Your task to perform on an android device: Open Chrome and go to settings Image 0: 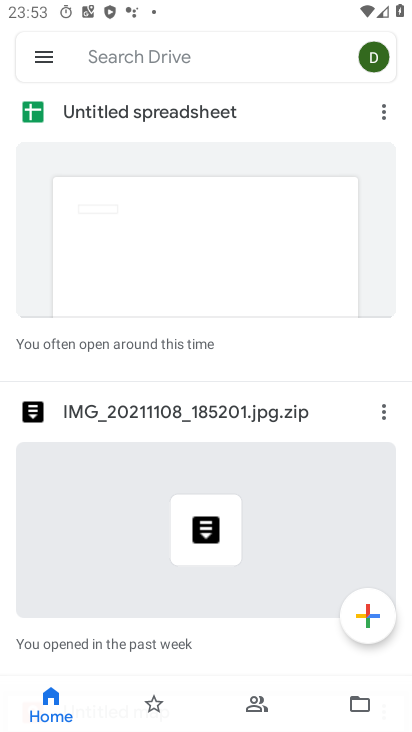
Step 0: press home button
Your task to perform on an android device: Open Chrome and go to settings Image 1: 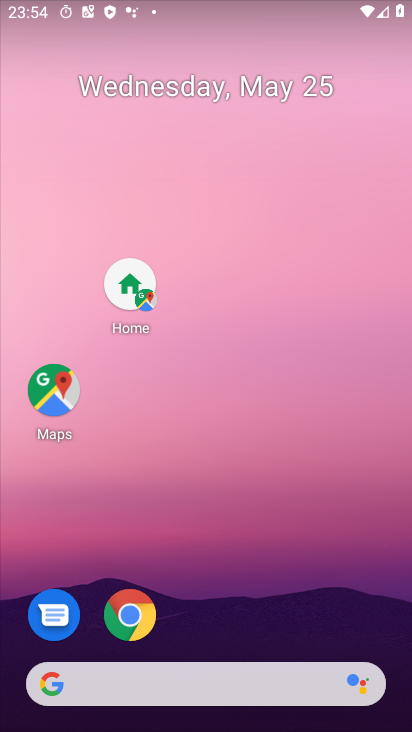
Step 1: click (128, 621)
Your task to perform on an android device: Open Chrome and go to settings Image 2: 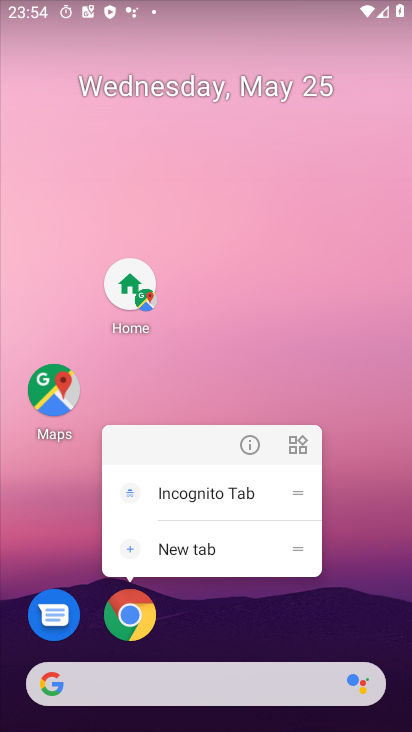
Step 2: click (132, 619)
Your task to perform on an android device: Open Chrome and go to settings Image 3: 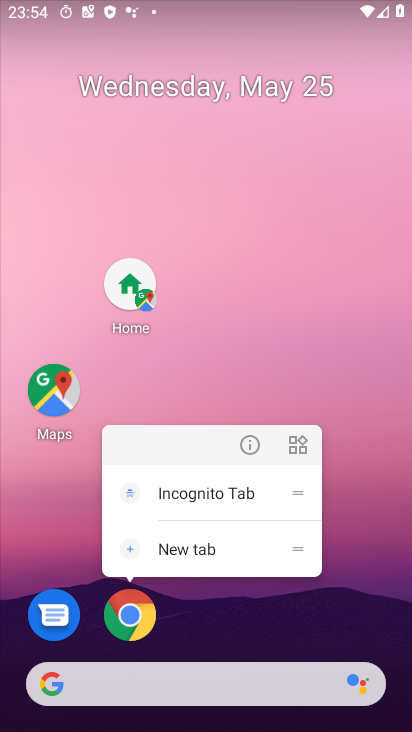
Step 3: click (132, 618)
Your task to perform on an android device: Open Chrome and go to settings Image 4: 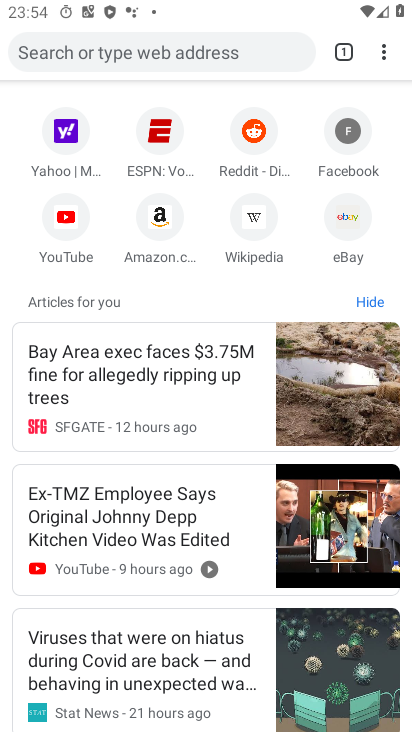
Step 4: click (380, 46)
Your task to perform on an android device: Open Chrome and go to settings Image 5: 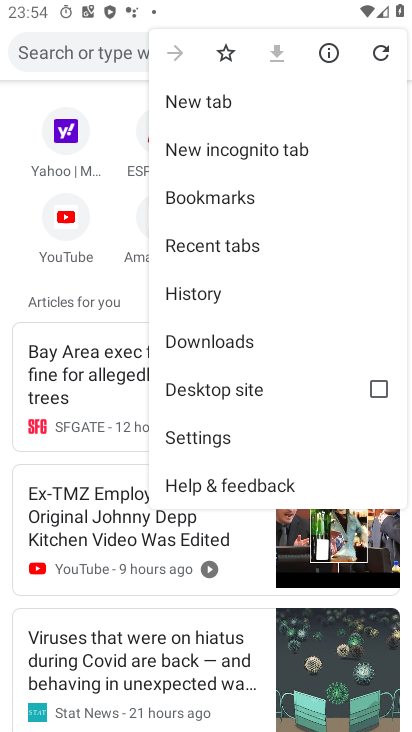
Step 5: click (203, 439)
Your task to perform on an android device: Open Chrome and go to settings Image 6: 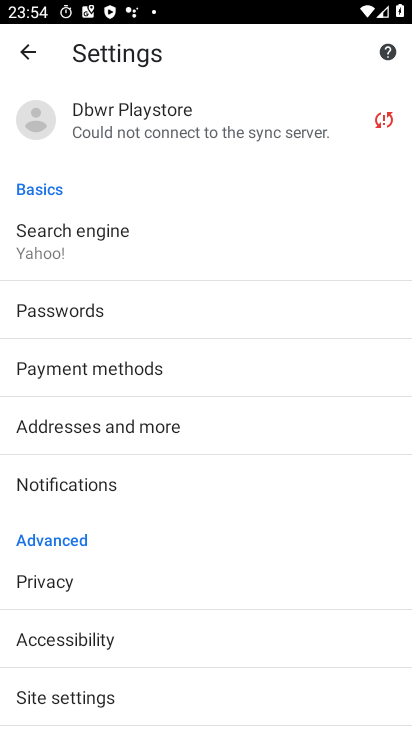
Step 6: task complete